Your task to perform on an android device: Do I have any events today? Image 0: 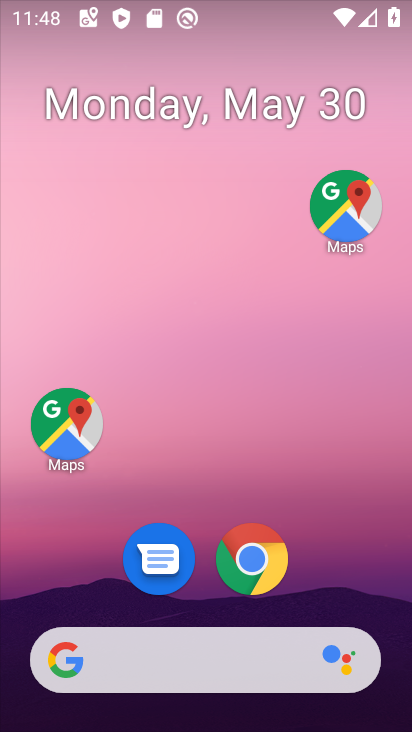
Step 0: click (309, 171)
Your task to perform on an android device: Do I have any events today? Image 1: 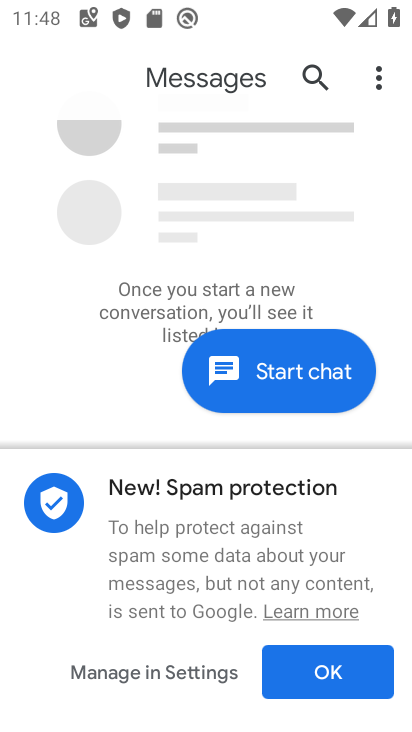
Step 1: press home button
Your task to perform on an android device: Do I have any events today? Image 2: 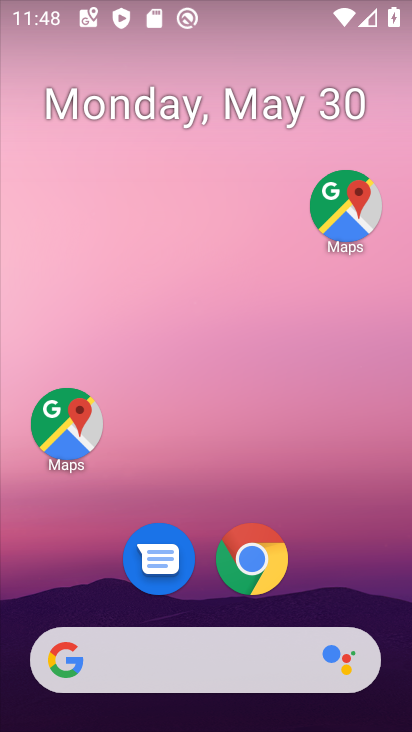
Step 2: drag from (329, 583) to (289, 129)
Your task to perform on an android device: Do I have any events today? Image 3: 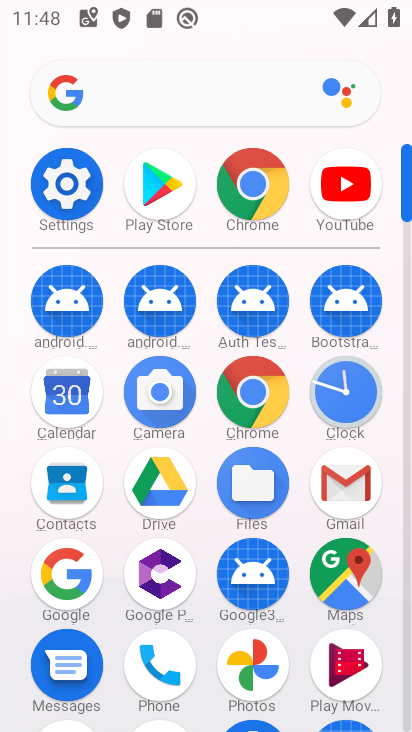
Step 3: click (65, 406)
Your task to perform on an android device: Do I have any events today? Image 4: 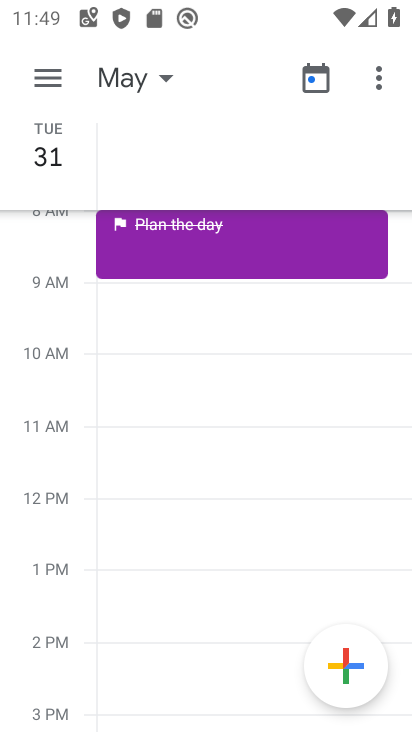
Step 4: drag from (196, 294) to (196, 536)
Your task to perform on an android device: Do I have any events today? Image 5: 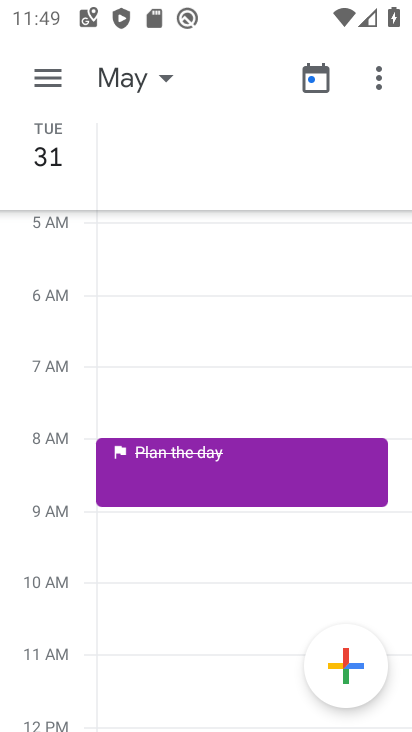
Step 5: click (143, 91)
Your task to perform on an android device: Do I have any events today? Image 6: 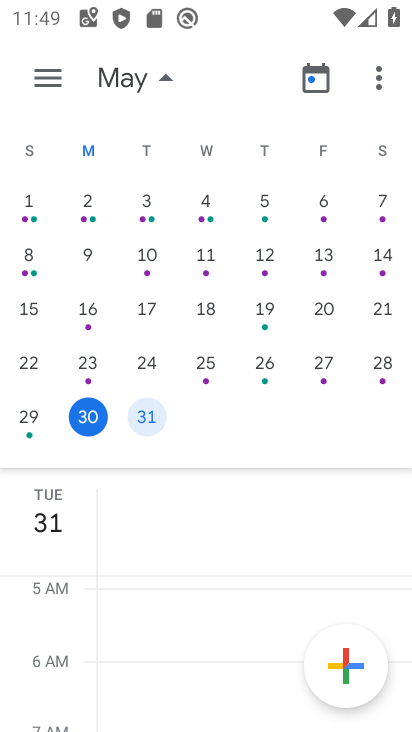
Step 6: click (93, 415)
Your task to perform on an android device: Do I have any events today? Image 7: 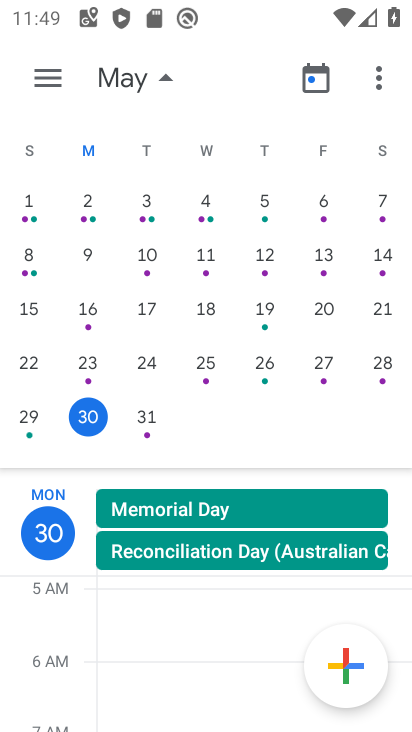
Step 7: task complete